Your task to perform on an android device: Open Youtube and go to the subscriptions tab Image 0: 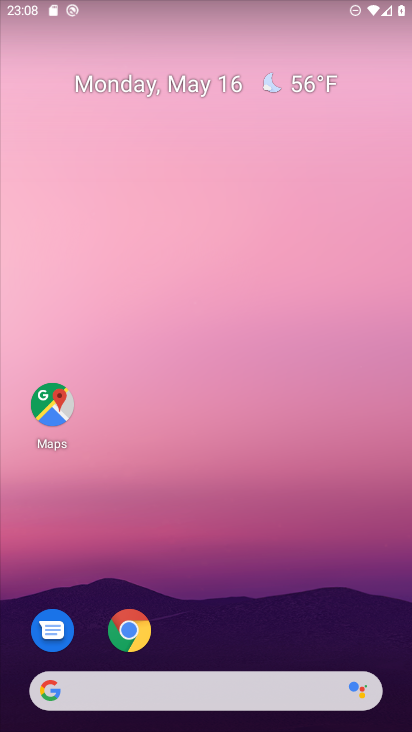
Step 0: drag from (224, 623) to (215, 97)
Your task to perform on an android device: Open Youtube and go to the subscriptions tab Image 1: 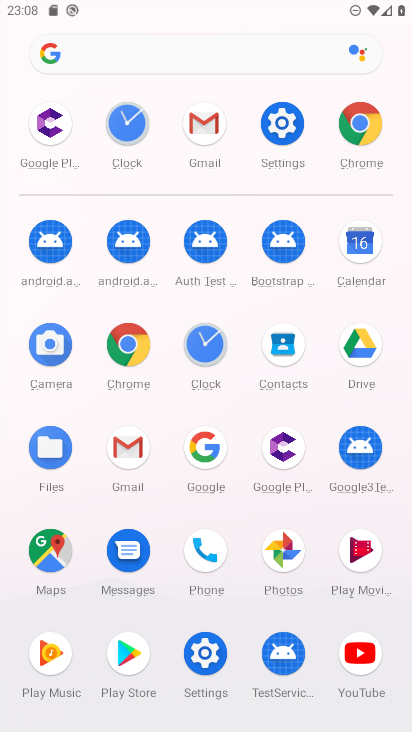
Step 1: drag from (167, 477) to (185, 209)
Your task to perform on an android device: Open Youtube and go to the subscriptions tab Image 2: 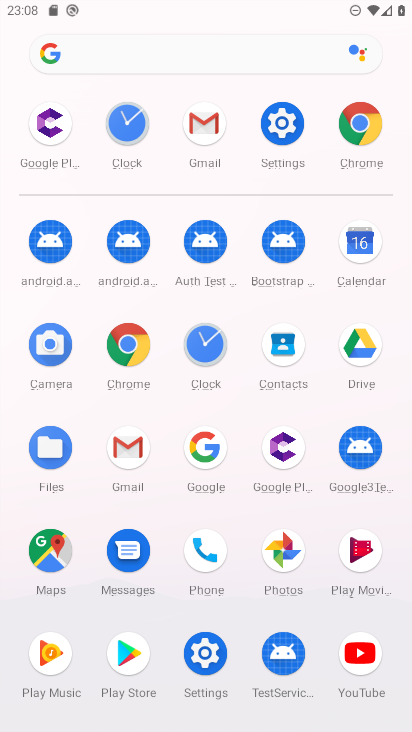
Step 2: click (354, 644)
Your task to perform on an android device: Open Youtube and go to the subscriptions tab Image 3: 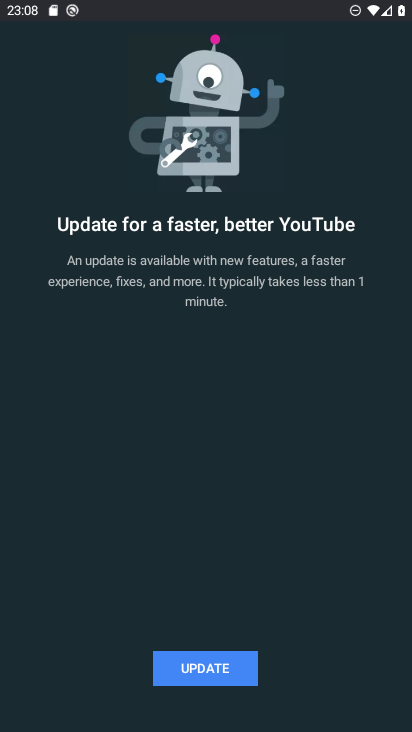
Step 3: click (233, 664)
Your task to perform on an android device: Open Youtube and go to the subscriptions tab Image 4: 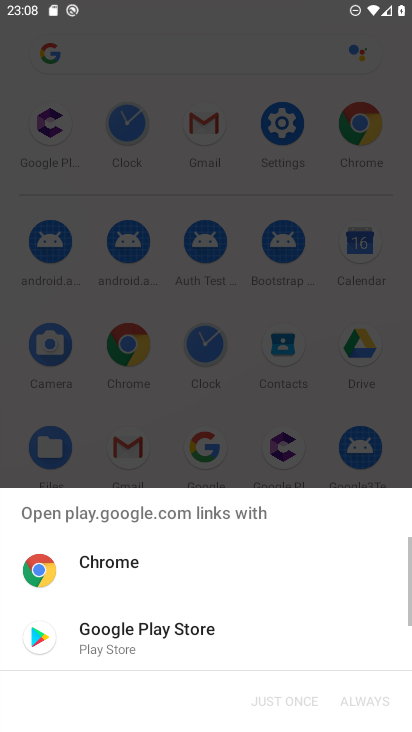
Step 4: click (199, 605)
Your task to perform on an android device: Open Youtube and go to the subscriptions tab Image 5: 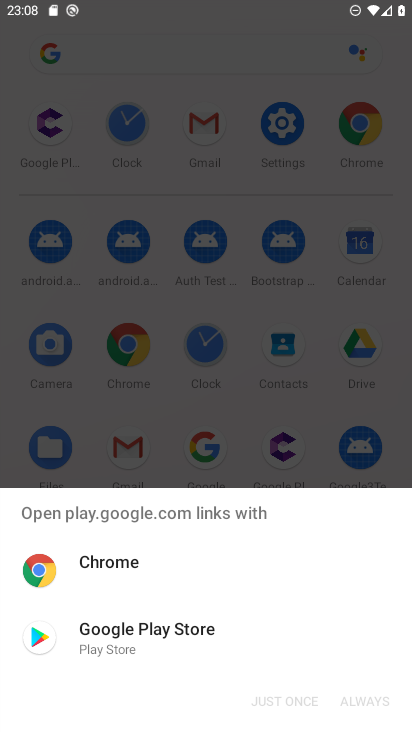
Step 5: click (196, 633)
Your task to perform on an android device: Open Youtube and go to the subscriptions tab Image 6: 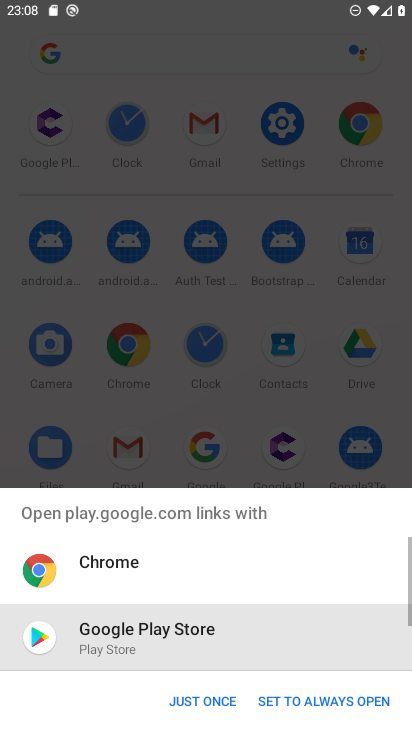
Step 6: click (212, 695)
Your task to perform on an android device: Open Youtube and go to the subscriptions tab Image 7: 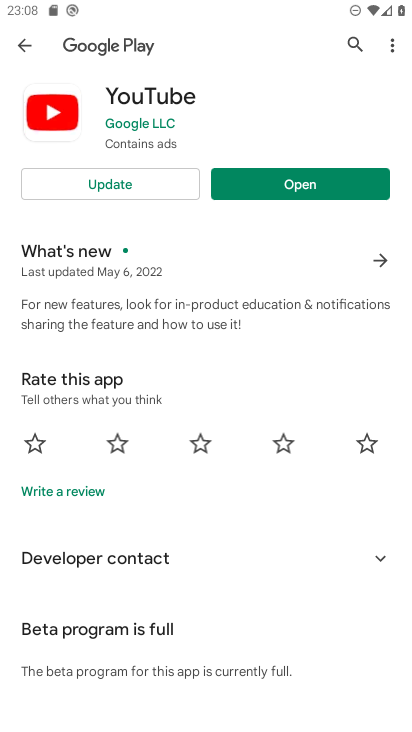
Step 7: click (179, 181)
Your task to perform on an android device: Open Youtube and go to the subscriptions tab Image 8: 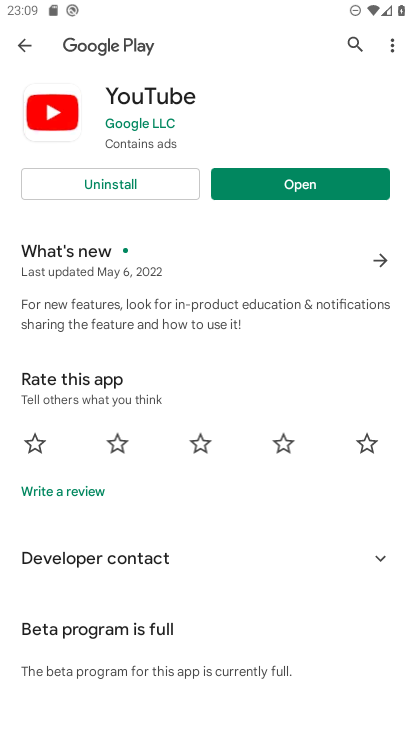
Step 8: click (342, 172)
Your task to perform on an android device: Open Youtube and go to the subscriptions tab Image 9: 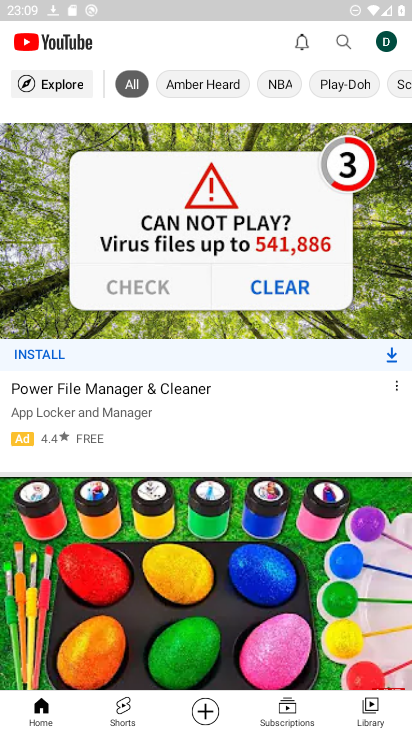
Step 9: click (297, 709)
Your task to perform on an android device: Open Youtube and go to the subscriptions tab Image 10: 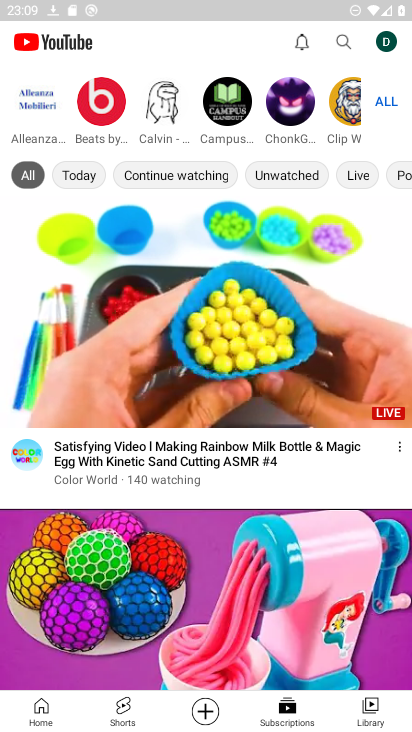
Step 10: task complete